Your task to perform on an android device: open app "Airtel Thanks" (install if not already installed) Image 0: 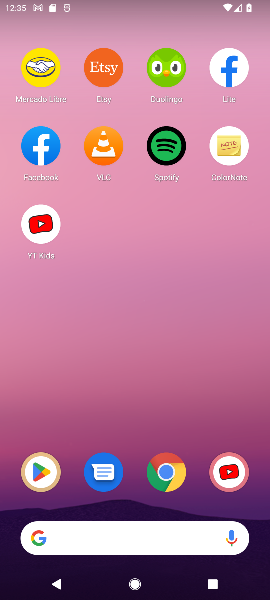
Step 0: press home button
Your task to perform on an android device: open app "Airtel Thanks" (install if not already installed) Image 1: 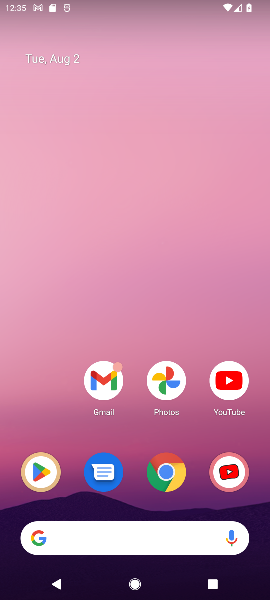
Step 1: click (44, 461)
Your task to perform on an android device: open app "Airtel Thanks" (install if not already installed) Image 2: 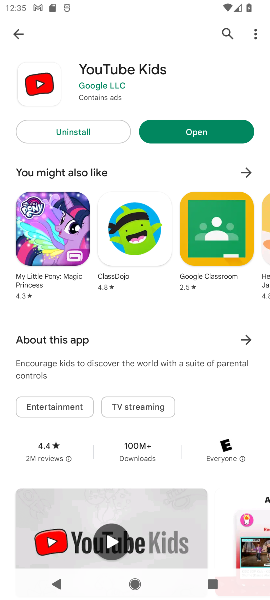
Step 2: click (223, 31)
Your task to perform on an android device: open app "Airtel Thanks" (install if not already installed) Image 3: 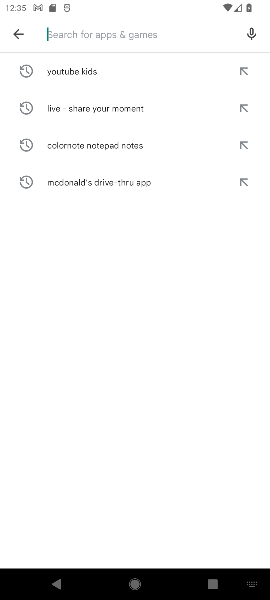
Step 3: type "airtel thanks"
Your task to perform on an android device: open app "Airtel Thanks" (install if not already installed) Image 4: 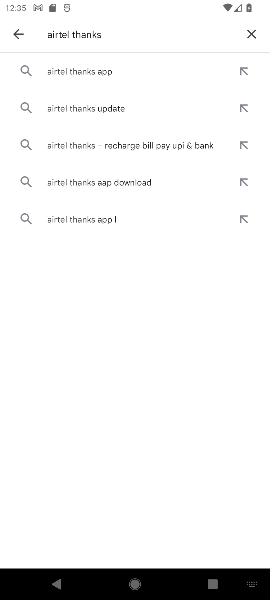
Step 4: click (59, 75)
Your task to perform on an android device: open app "Airtel Thanks" (install if not already installed) Image 5: 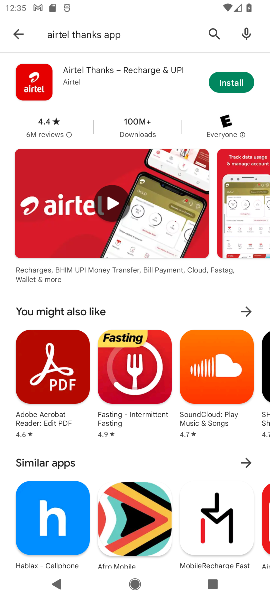
Step 5: click (110, 63)
Your task to perform on an android device: open app "Airtel Thanks" (install if not already installed) Image 6: 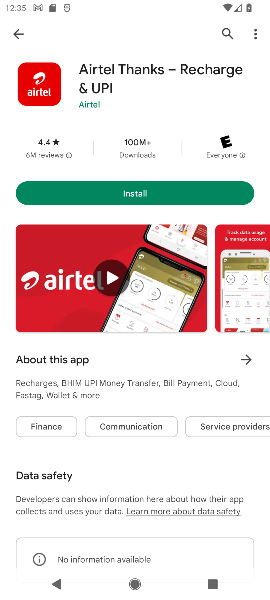
Step 6: click (152, 193)
Your task to perform on an android device: open app "Airtel Thanks" (install if not already installed) Image 7: 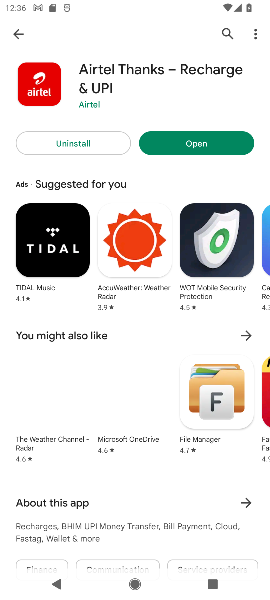
Step 7: click (186, 139)
Your task to perform on an android device: open app "Airtel Thanks" (install if not already installed) Image 8: 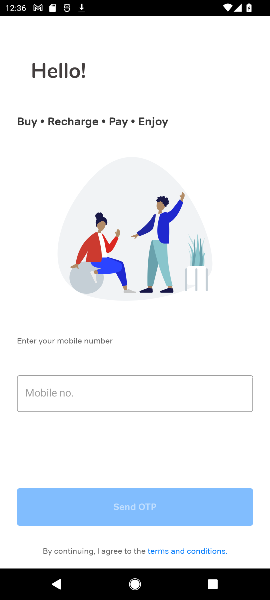
Step 8: task complete